Your task to perform on an android device: read, delete, or share a saved page in the chrome app Image 0: 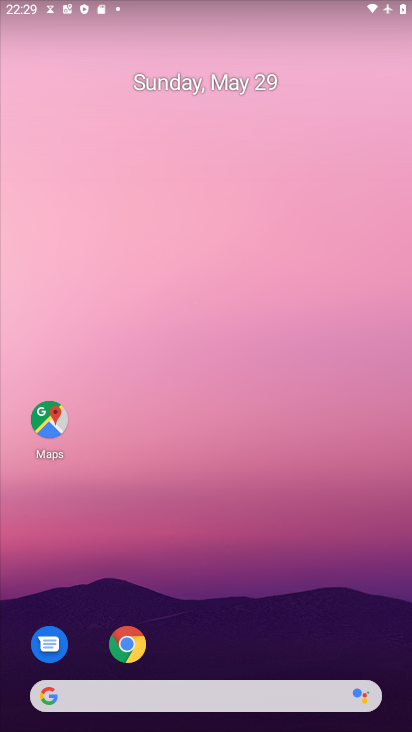
Step 0: drag from (213, 611) to (252, 279)
Your task to perform on an android device: read, delete, or share a saved page in the chrome app Image 1: 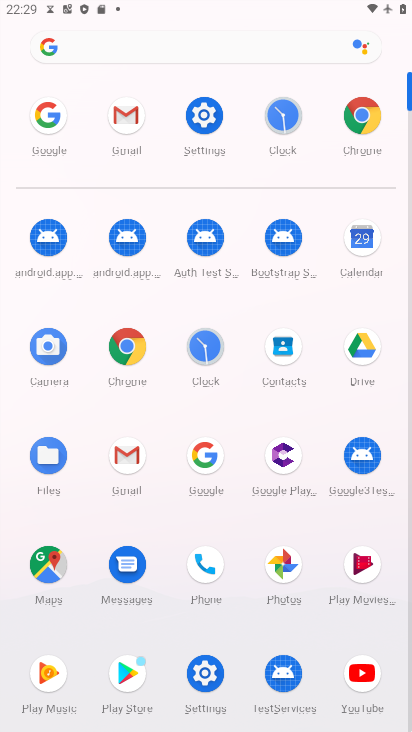
Step 1: click (144, 347)
Your task to perform on an android device: read, delete, or share a saved page in the chrome app Image 2: 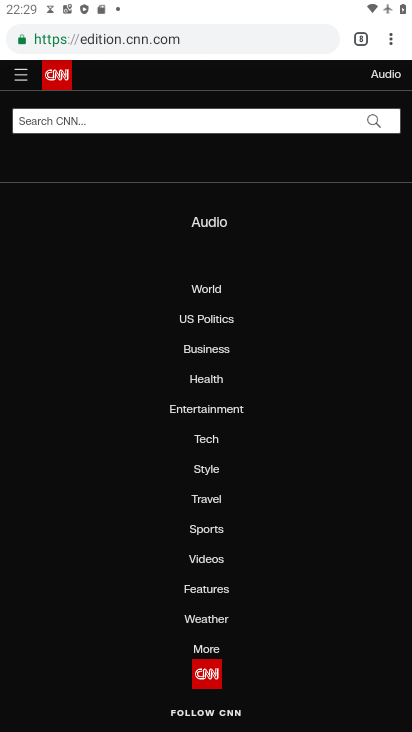
Step 2: click (394, 26)
Your task to perform on an android device: read, delete, or share a saved page in the chrome app Image 3: 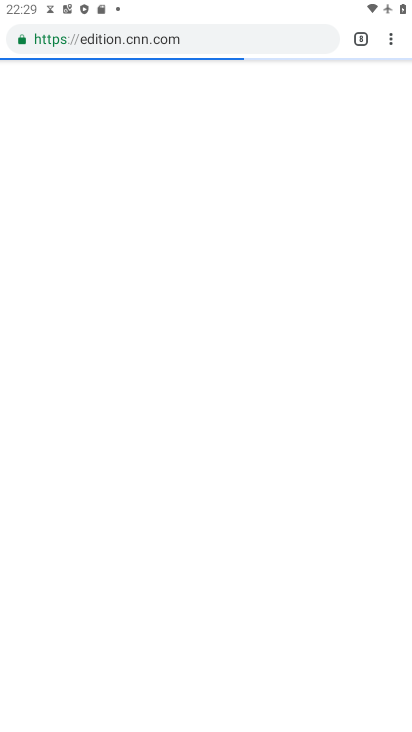
Step 3: click (396, 33)
Your task to perform on an android device: read, delete, or share a saved page in the chrome app Image 4: 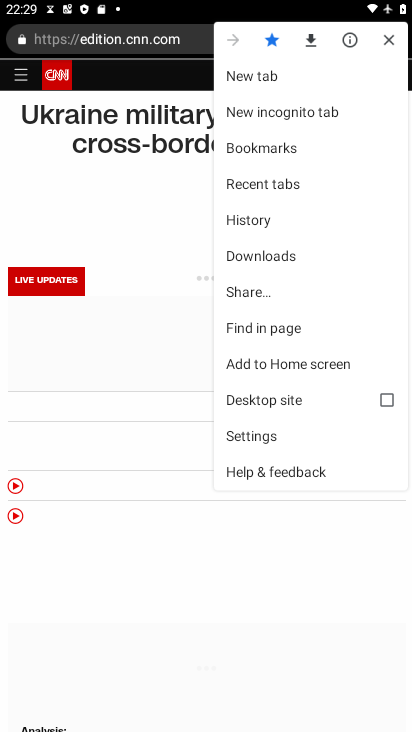
Step 4: click (273, 261)
Your task to perform on an android device: read, delete, or share a saved page in the chrome app Image 5: 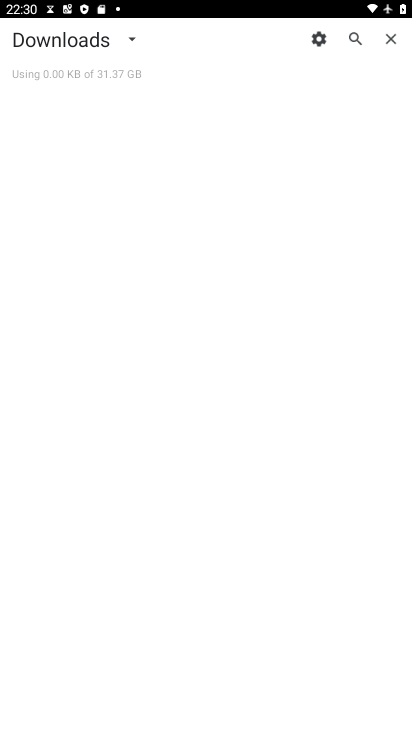
Step 5: click (130, 41)
Your task to perform on an android device: read, delete, or share a saved page in the chrome app Image 6: 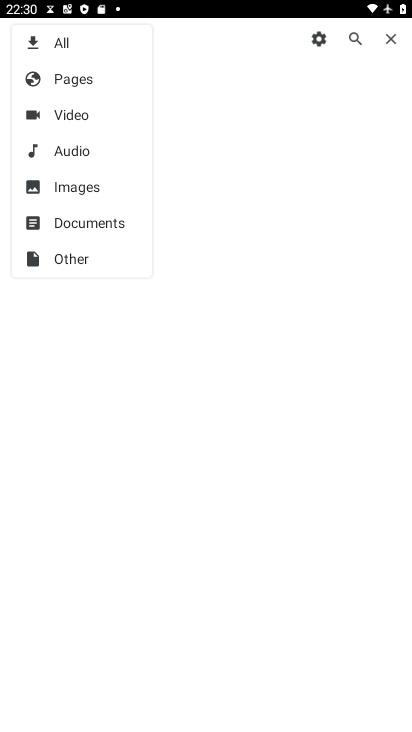
Step 6: click (79, 83)
Your task to perform on an android device: read, delete, or share a saved page in the chrome app Image 7: 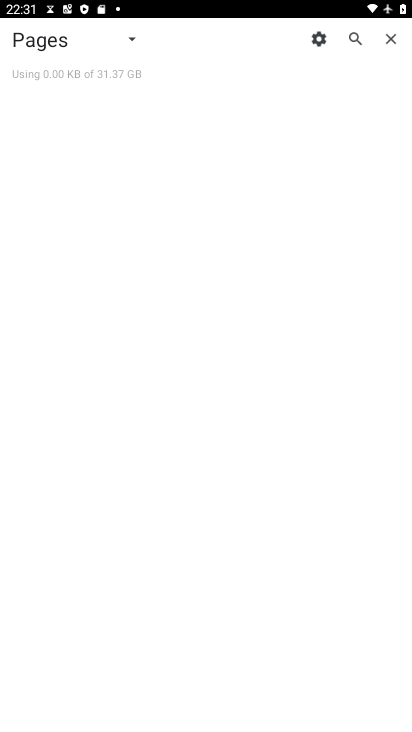
Step 7: task complete